Your task to perform on an android device: Open Youtube and go to the subscriptions tab Image 0: 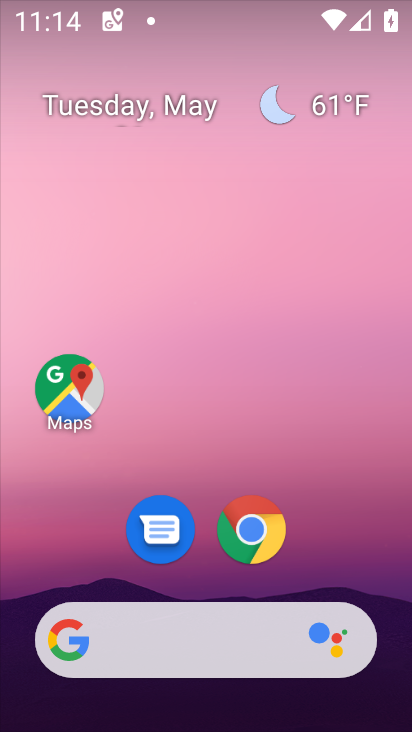
Step 0: drag from (370, 550) to (154, 148)
Your task to perform on an android device: Open Youtube and go to the subscriptions tab Image 1: 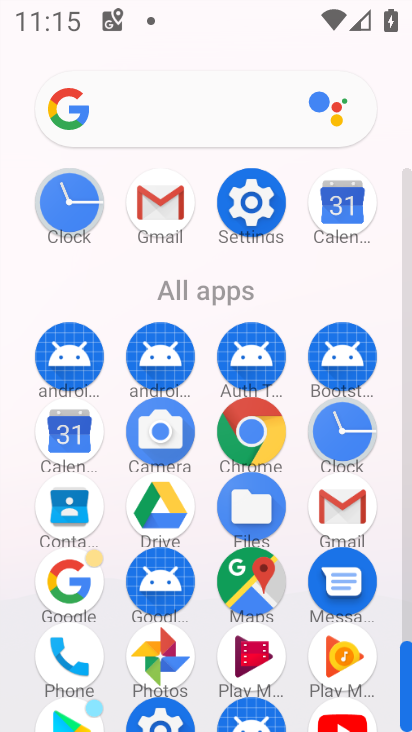
Step 1: click (342, 718)
Your task to perform on an android device: Open Youtube and go to the subscriptions tab Image 2: 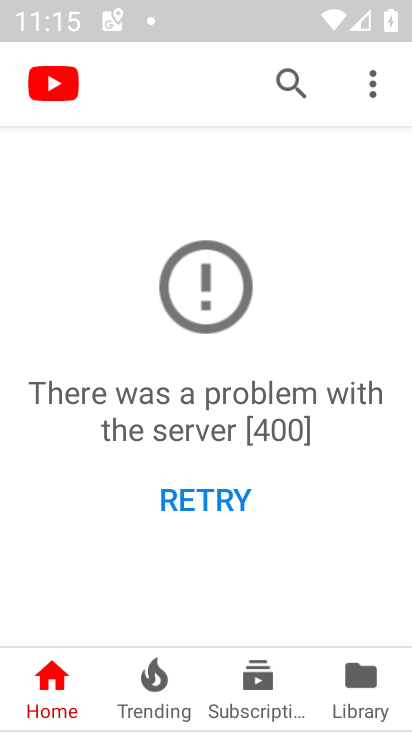
Step 2: click (264, 700)
Your task to perform on an android device: Open Youtube and go to the subscriptions tab Image 3: 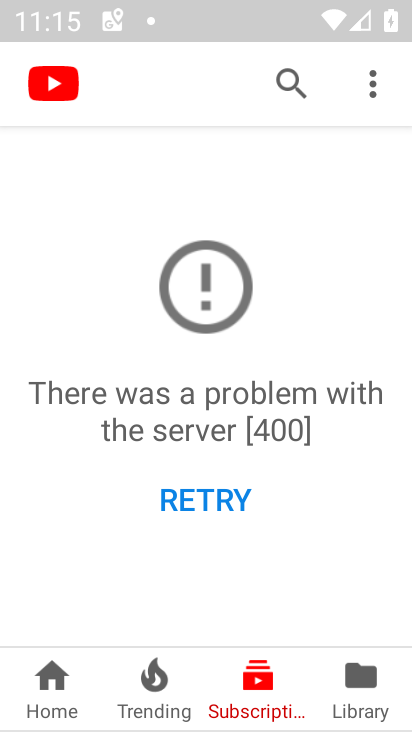
Step 3: task complete